Your task to perform on an android device: Empty the shopping cart on walmart.com. Search for razer thresher on walmart.com, select the first entry, add it to the cart, then select checkout. Image 0: 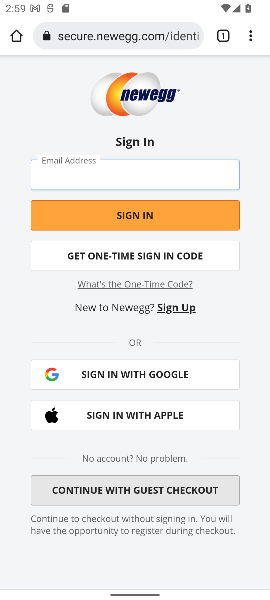
Step 0: click (107, 39)
Your task to perform on an android device: Empty the shopping cart on walmart.com. Search for razer thresher on walmart.com, select the first entry, add it to the cart, then select checkout. Image 1: 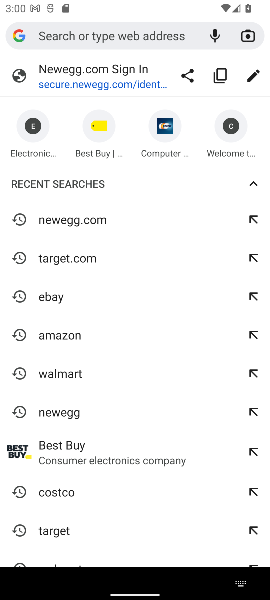
Step 1: click (57, 381)
Your task to perform on an android device: Empty the shopping cart on walmart.com. Search for razer thresher on walmart.com, select the first entry, add it to the cart, then select checkout. Image 2: 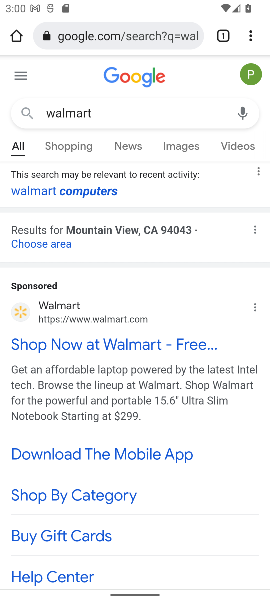
Step 2: drag from (70, 410) to (93, 150)
Your task to perform on an android device: Empty the shopping cart on walmart.com. Search for razer thresher on walmart.com, select the first entry, add it to the cart, then select checkout. Image 3: 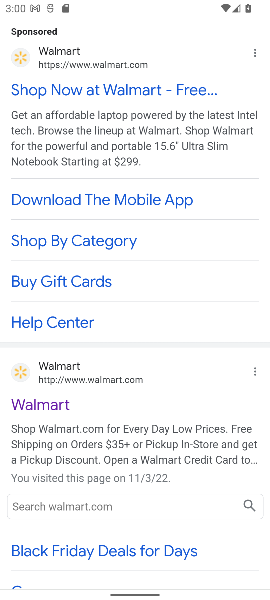
Step 3: click (42, 401)
Your task to perform on an android device: Empty the shopping cart on walmart.com. Search for razer thresher on walmart.com, select the first entry, add it to the cart, then select checkout. Image 4: 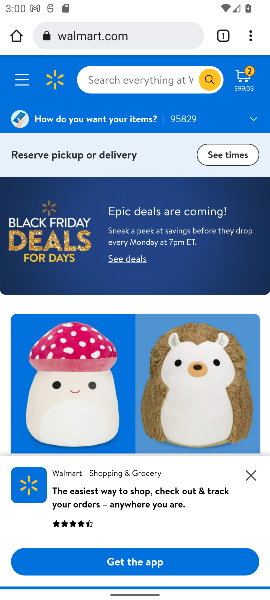
Step 4: click (247, 76)
Your task to perform on an android device: Empty the shopping cart on walmart.com. Search for razer thresher on walmart.com, select the first entry, add it to the cart, then select checkout. Image 5: 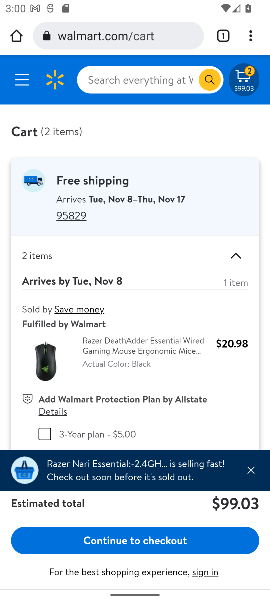
Step 5: drag from (123, 411) to (137, 239)
Your task to perform on an android device: Empty the shopping cart on walmart.com. Search for razer thresher on walmart.com, select the first entry, add it to the cart, then select checkout. Image 6: 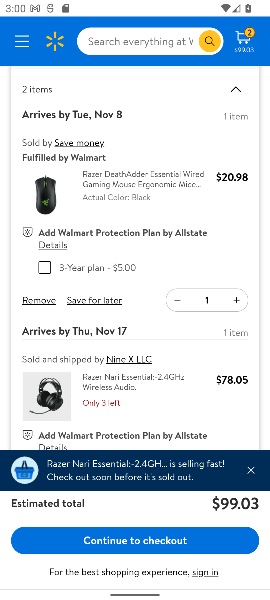
Step 6: click (41, 299)
Your task to perform on an android device: Empty the shopping cart on walmart.com. Search for razer thresher on walmart.com, select the first entry, add it to the cart, then select checkout. Image 7: 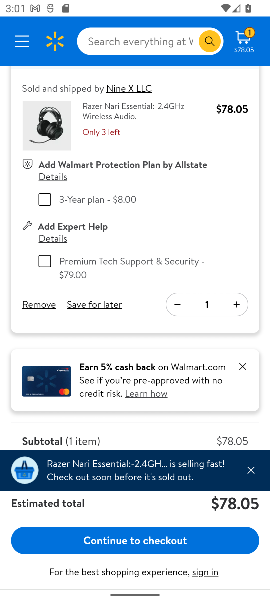
Step 7: click (33, 305)
Your task to perform on an android device: Empty the shopping cart on walmart.com. Search for razer thresher on walmart.com, select the first entry, add it to the cart, then select checkout. Image 8: 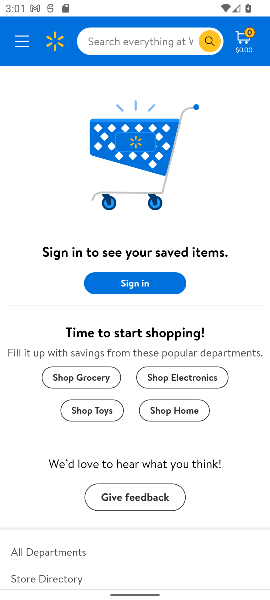
Step 8: click (149, 43)
Your task to perform on an android device: Empty the shopping cart on walmart.com. Search for razer thresher on walmart.com, select the first entry, add it to the cart, then select checkout. Image 9: 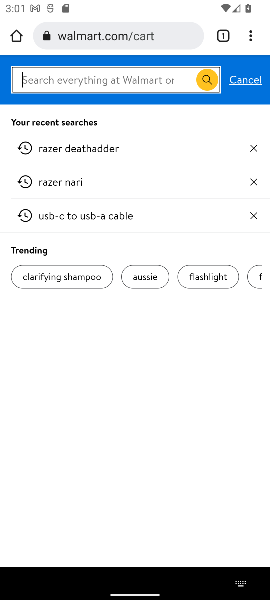
Step 9: type " razer thresher"
Your task to perform on an android device: Empty the shopping cart on walmart.com. Search for razer thresher on walmart.com, select the first entry, add it to the cart, then select checkout. Image 10: 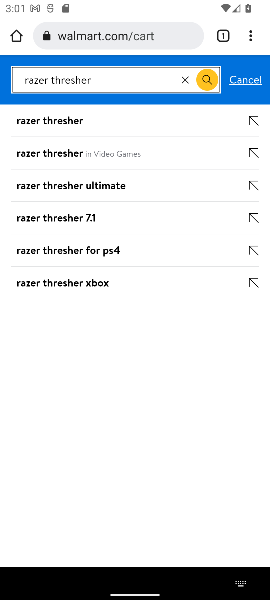
Step 10: click (69, 124)
Your task to perform on an android device: Empty the shopping cart on walmart.com. Search for razer thresher on walmart.com, select the first entry, add it to the cart, then select checkout. Image 11: 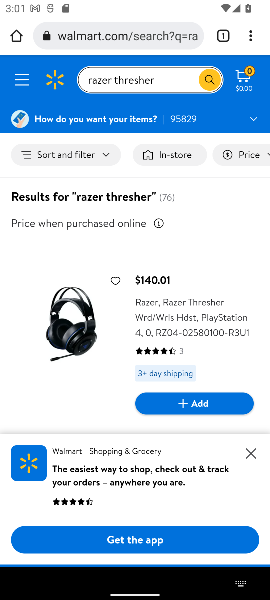
Step 11: click (186, 402)
Your task to perform on an android device: Empty the shopping cart on walmart.com. Search for razer thresher on walmart.com, select the first entry, add it to the cart, then select checkout. Image 12: 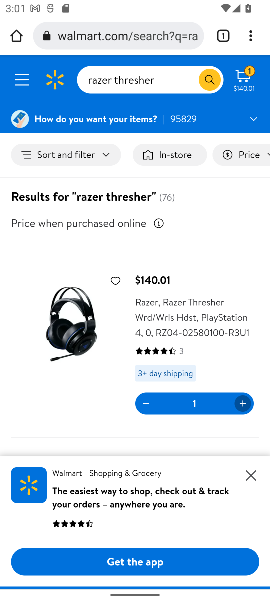
Step 12: click (239, 84)
Your task to perform on an android device: Empty the shopping cart on walmart.com. Search for razer thresher on walmart.com, select the first entry, add it to the cart, then select checkout. Image 13: 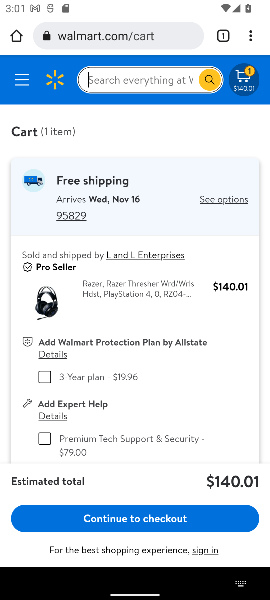
Step 13: click (129, 518)
Your task to perform on an android device: Empty the shopping cart on walmart.com. Search for razer thresher on walmart.com, select the first entry, add it to the cart, then select checkout. Image 14: 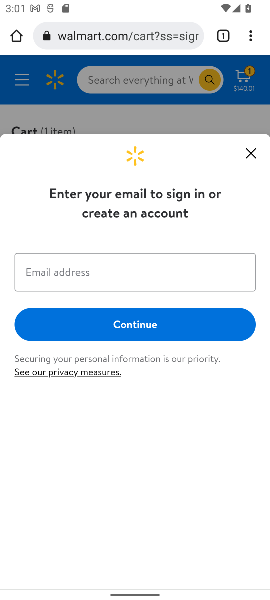
Step 14: task complete